Your task to perform on an android device: turn off sleep mode Image 0: 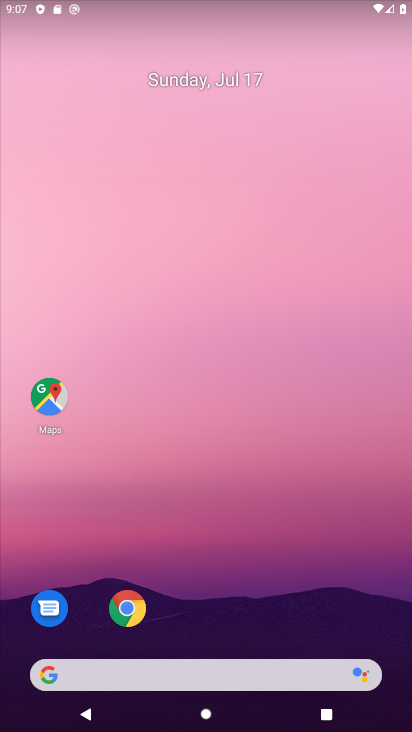
Step 0: drag from (227, 642) to (331, 40)
Your task to perform on an android device: turn off sleep mode Image 1: 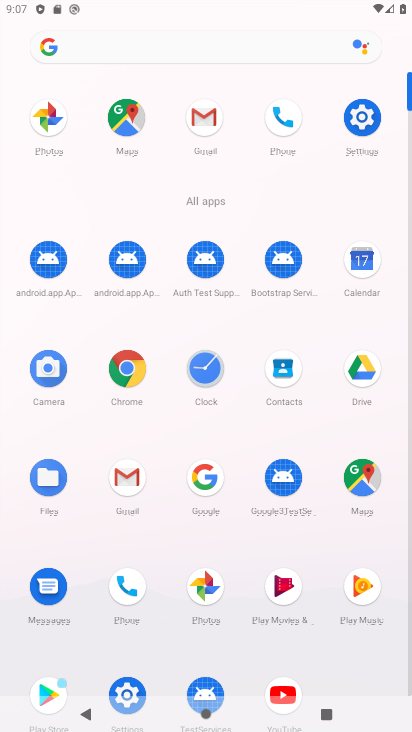
Step 1: click (140, 695)
Your task to perform on an android device: turn off sleep mode Image 2: 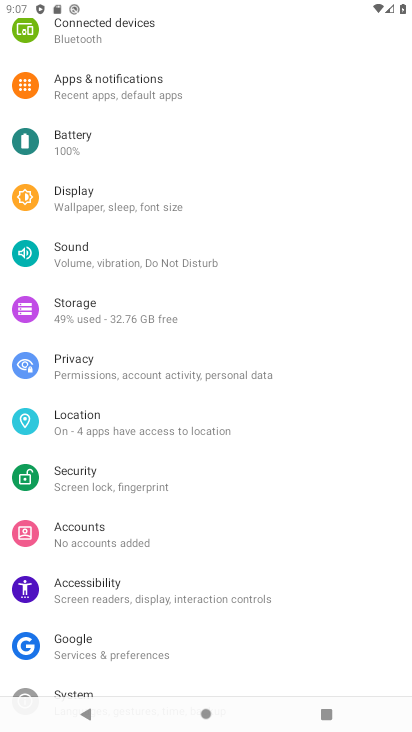
Step 2: click (192, 202)
Your task to perform on an android device: turn off sleep mode Image 3: 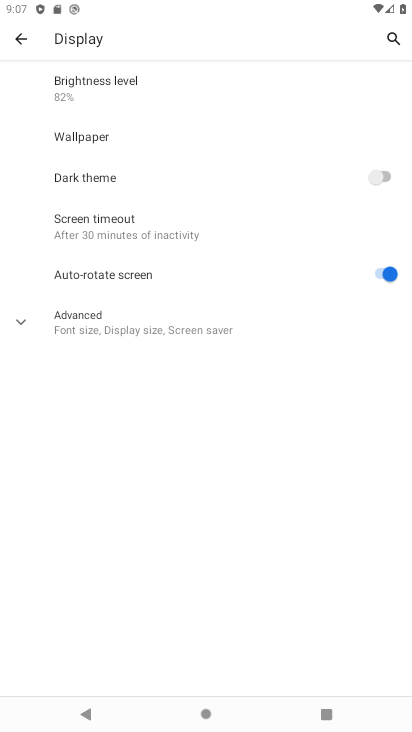
Step 3: click (165, 333)
Your task to perform on an android device: turn off sleep mode Image 4: 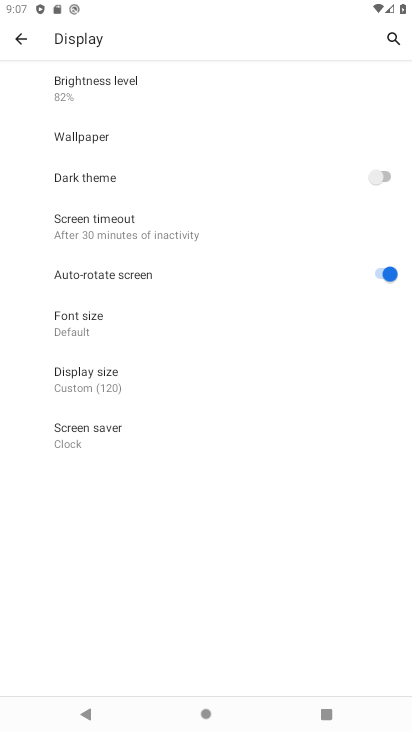
Step 4: task complete